Your task to perform on an android device: When is my next meeting? Image 0: 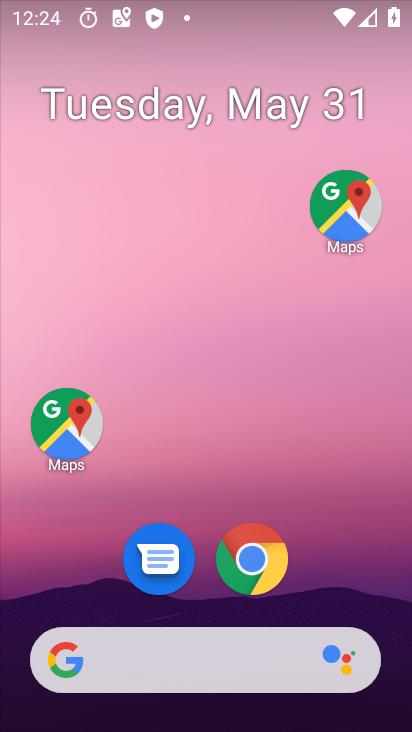
Step 0: drag from (313, 559) to (363, 120)
Your task to perform on an android device: When is my next meeting? Image 1: 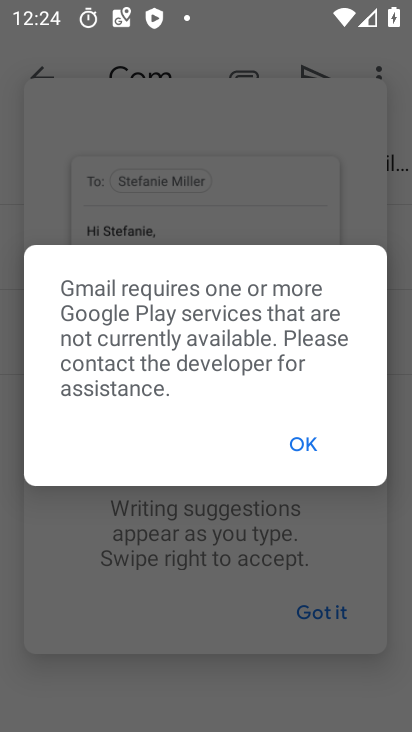
Step 1: press home button
Your task to perform on an android device: When is my next meeting? Image 2: 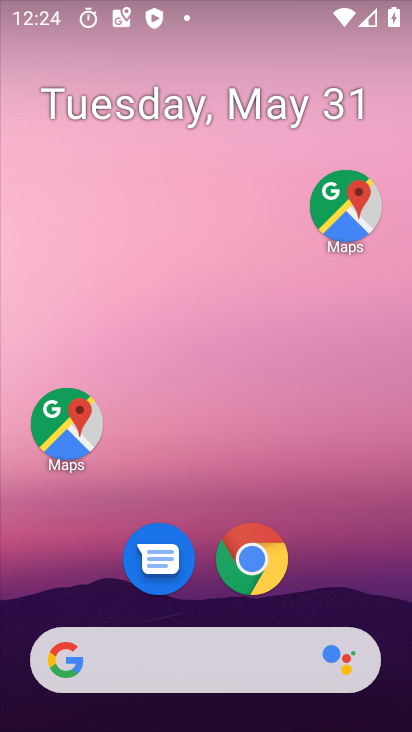
Step 2: drag from (329, 575) to (308, 17)
Your task to perform on an android device: When is my next meeting? Image 3: 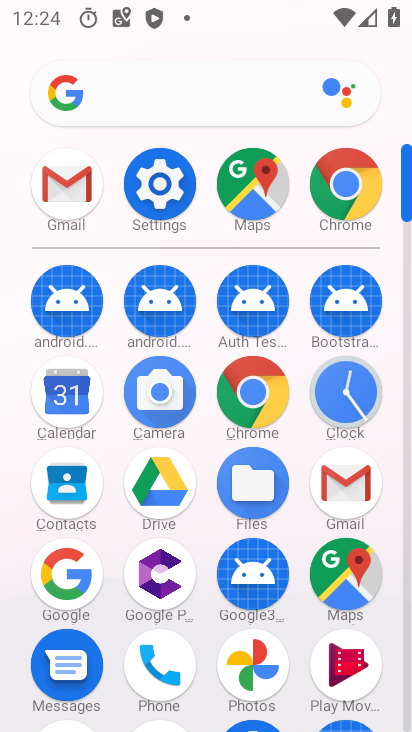
Step 3: click (77, 402)
Your task to perform on an android device: When is my next meeting? Image 4: 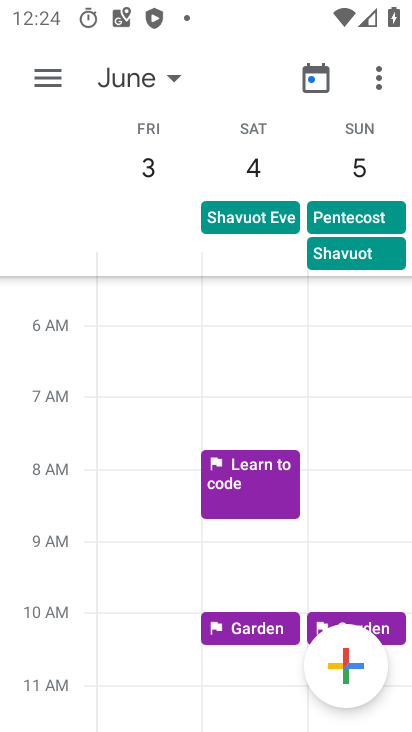
Step 4: task complete